Your task to perform on an android device: Open Google Chrome and open the bookmarks view Image 0: 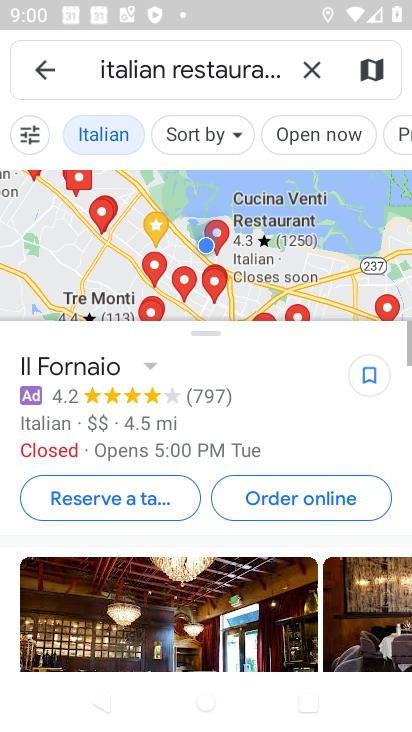
Step 0: press home button
Your task to perform on an android device: Open Google Chrome and open the bookmarks view Image 1: 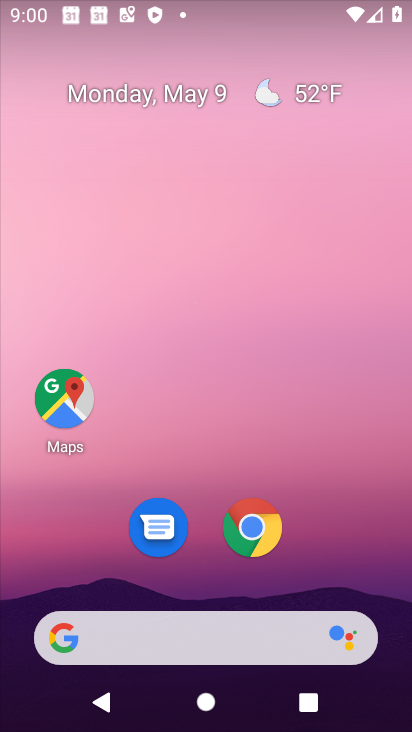
Step 1: click (254, 523)
Your task to perform on an android device: Open Google Chrome and open the bookmarks view Image 2: 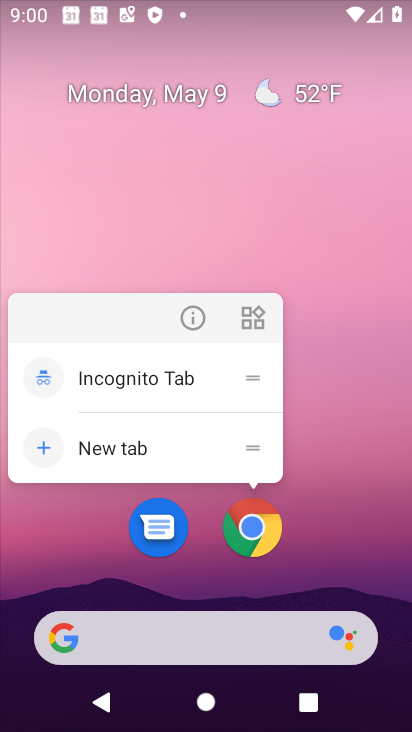
Step 2: click (252, 528)
Your task to perform on an android device: Open Google Chrome and open the bookmarks view Image 3: 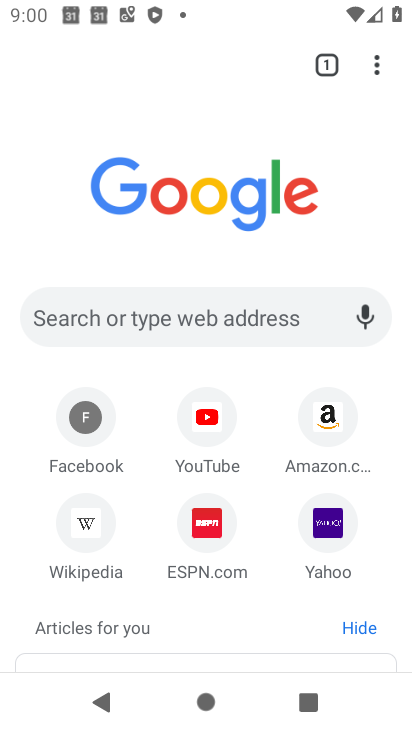
Step 3: click (371, 65)
Your task to perform on an android device: Open Google Chrome and open the bookmarks view Image 4: 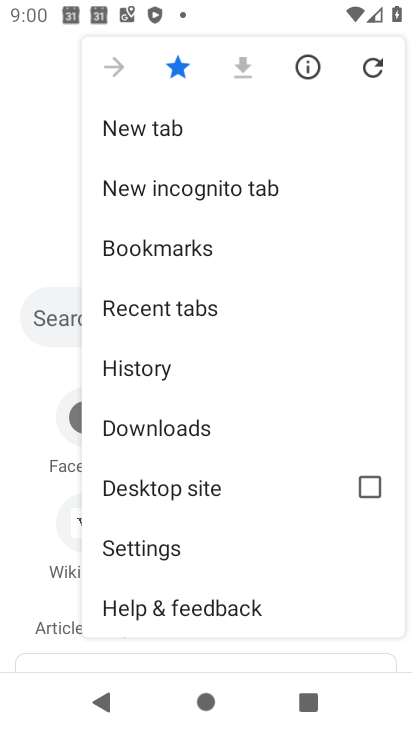
Step 4: click (191, 262)
Your task to perform on an android device: Open Google Chrome and open the bookmarks view Image 5: 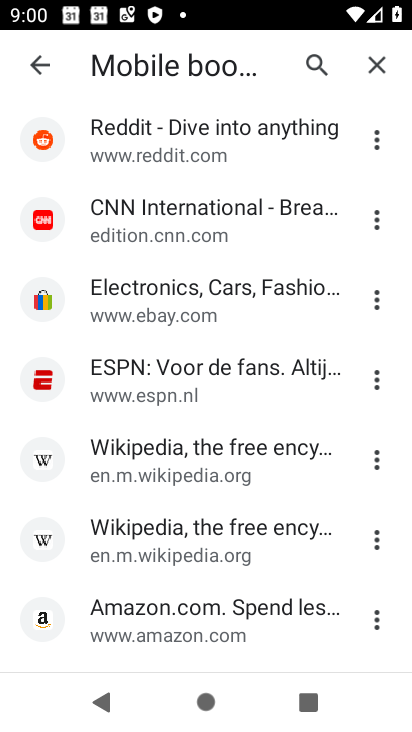
Step 5: click (151, 459)
Your task to perform on an android device: Open Google Chrome and open the bookmarks view Image 6: 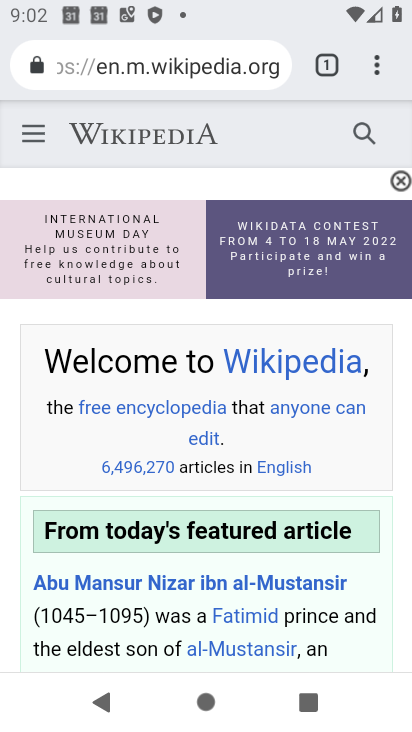
Step 6: task complete